Your task to perform on an android device: Search for usb-c to usb-b on ebay, select the first entry, add it to the cart, then select checkout. Image 0: 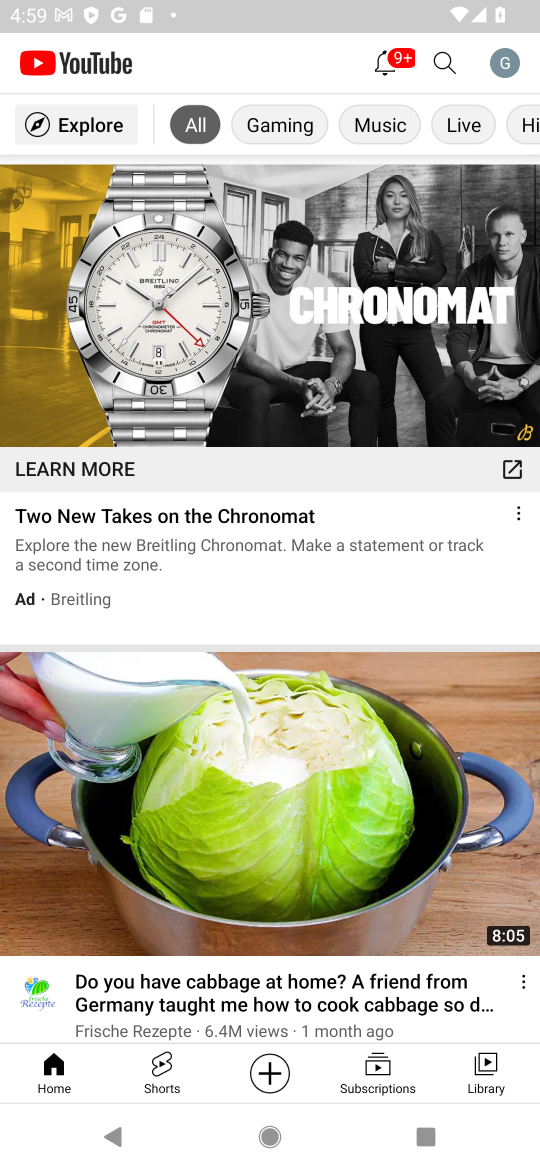
Step 0: press home button
Your task to perform on an android device: Search for usb-c to usb-b on ebay, select the first entry, add it to the cart, then select checkout. Image 1: 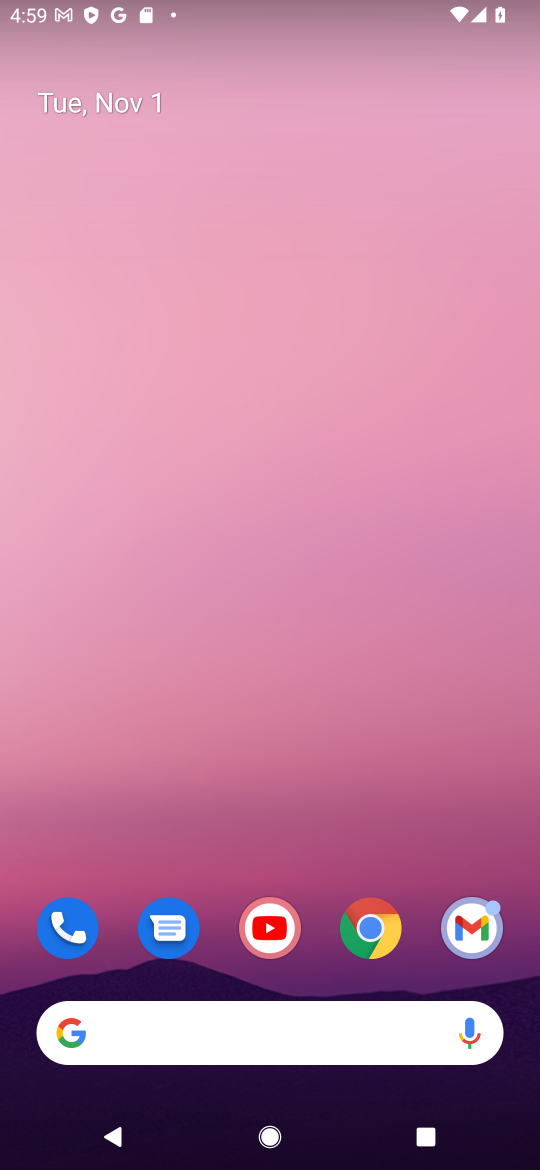
Step 1: click (375, 936)
Your task to perform on an android device: Search for usb-c to usb-b on ebay, select the first entry, add it to the cart, then select checkout. Image 2: 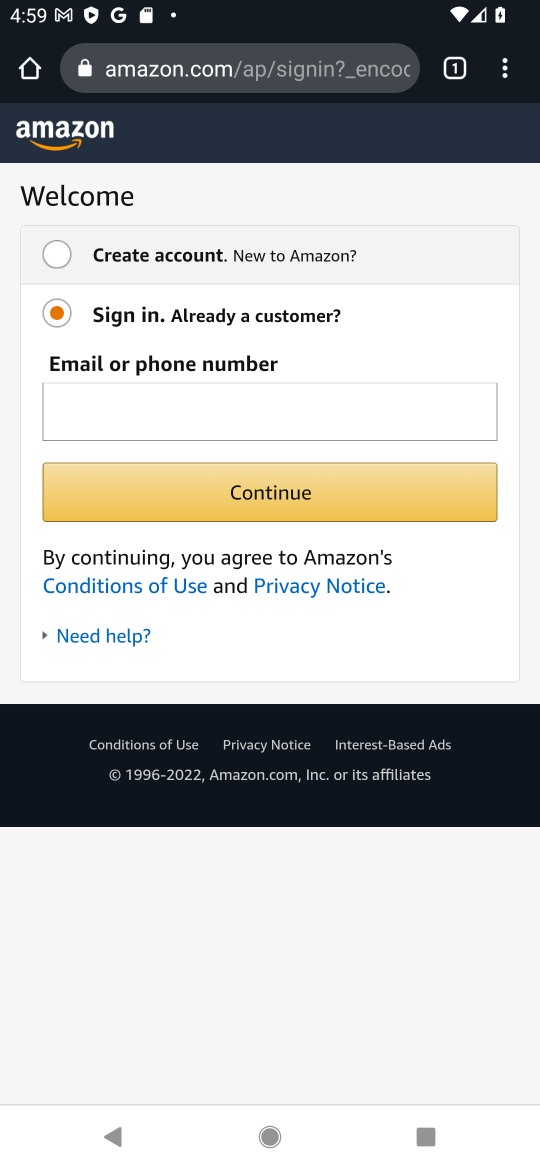
Step 2: click (271, 77)
Your task to perform on an android device: Search for usb-c to usb-b on ebay, select the first entry, add it to the cart, then select checkout. Image 3: 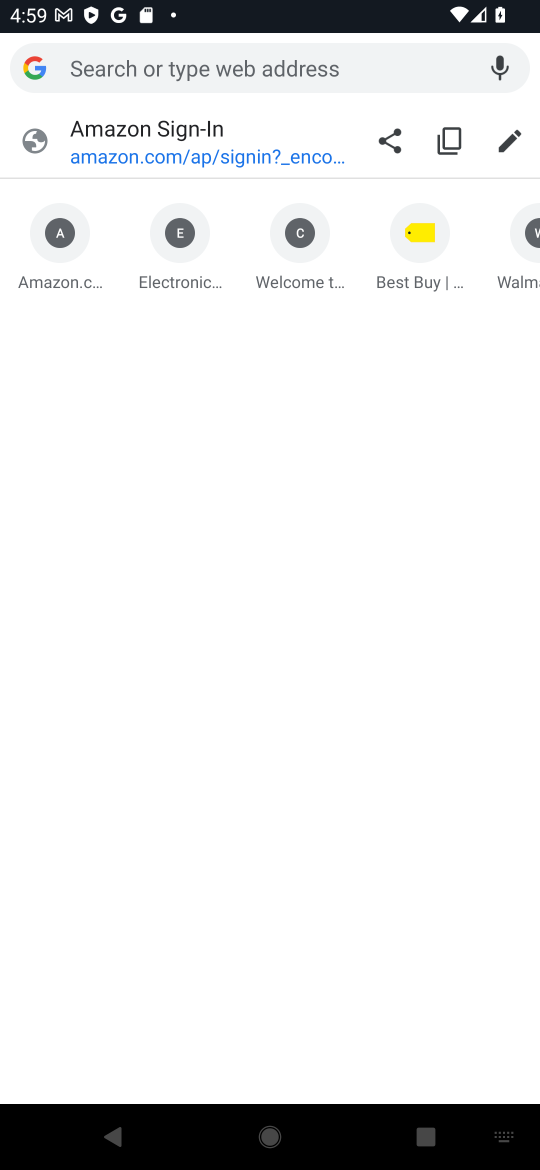
Step 3: type "ebay"
Your task to perform on an android device: Search for usb-c to usb-b on ebay, select the first entry, add it to the cart, then select checkout. Image 4: 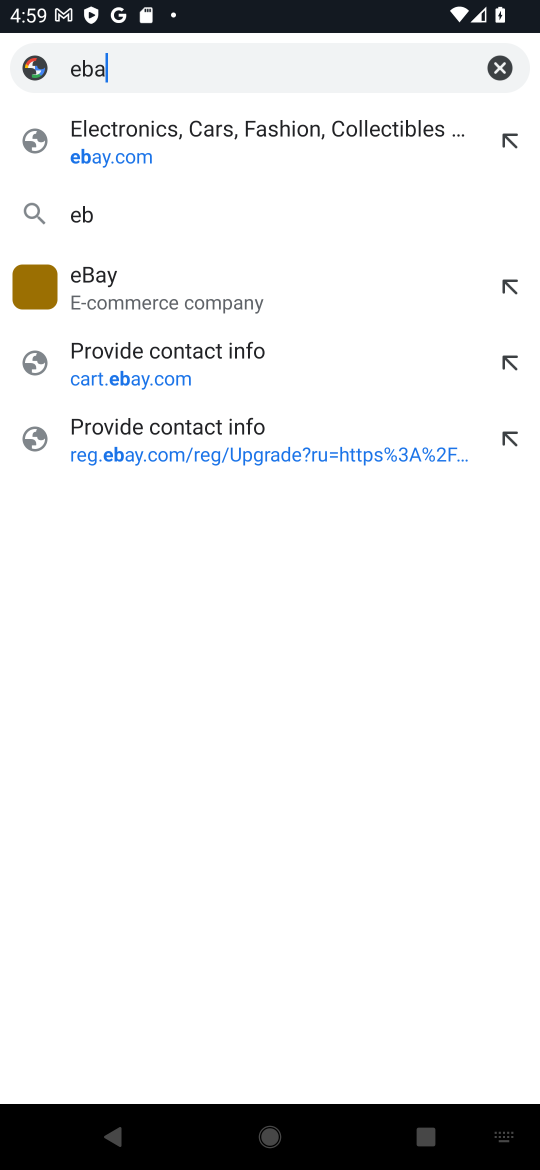
Step 4: type ""
Your task to perform on an android device: Search for usb-c to usb-b on ebay, select the first entry, add it to the cart, then select checkout. Image 5: 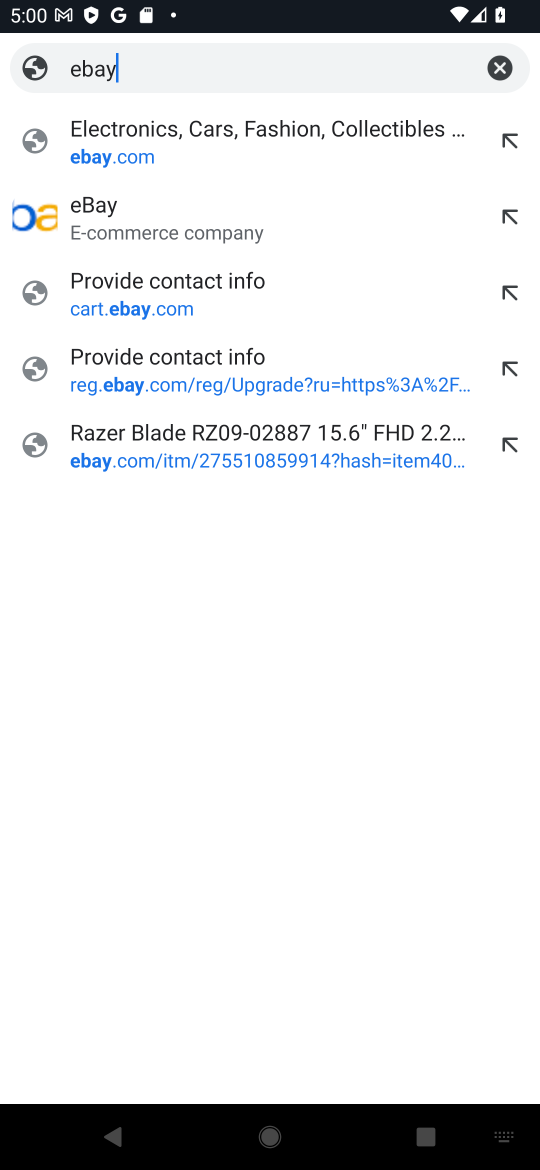
Step 5: press enter
Your task to perform on an android device: Search for usb-c to usb-b on ebay, select the first entry, add it to the cart, then select checkout. Image 6: 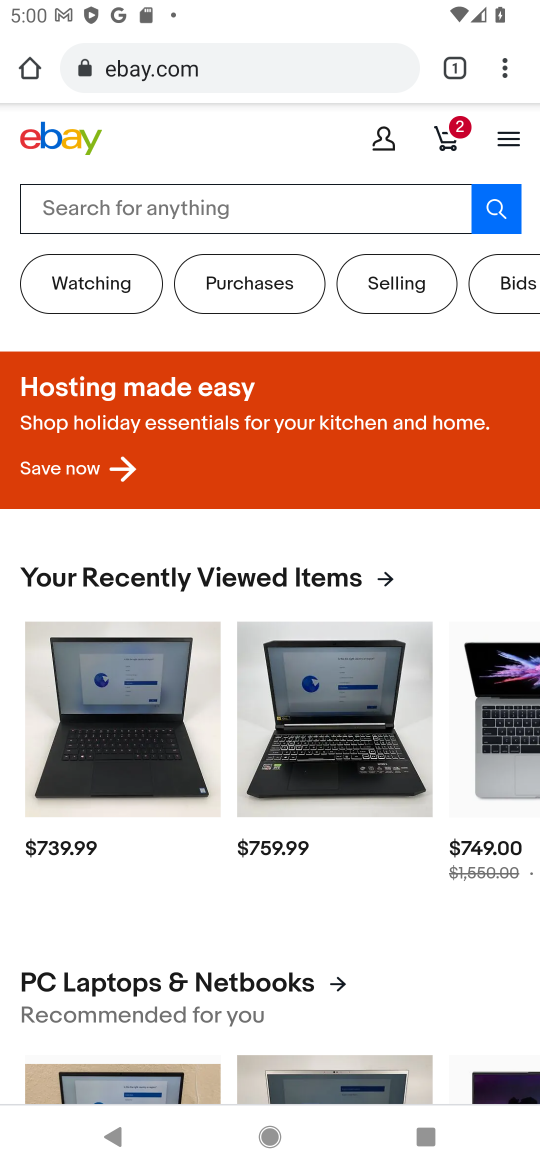
Step 6: click (306, 209)
Your task to perform on an android device: Search for usb-c to usb-b on ebay, select the first entry, add it to the cart, then select checkout. Image 7: 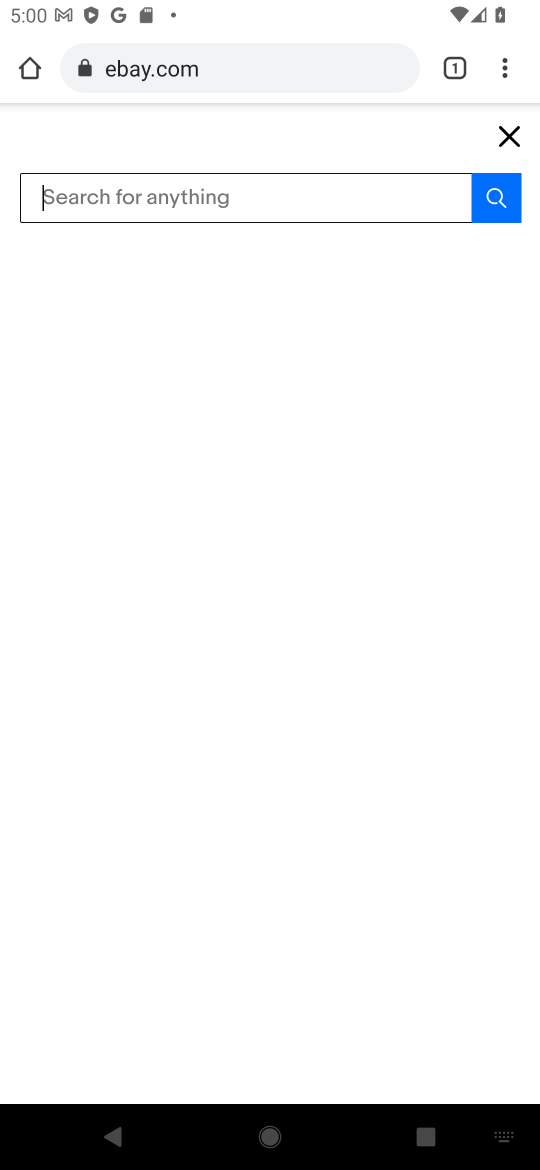
Step 7: type "usb-c to usb-b"
Your task to perform on an android device: Search for usb-c to usb-b on ebay, select the first entry, add it to the cart, then select checkout. Image 8: 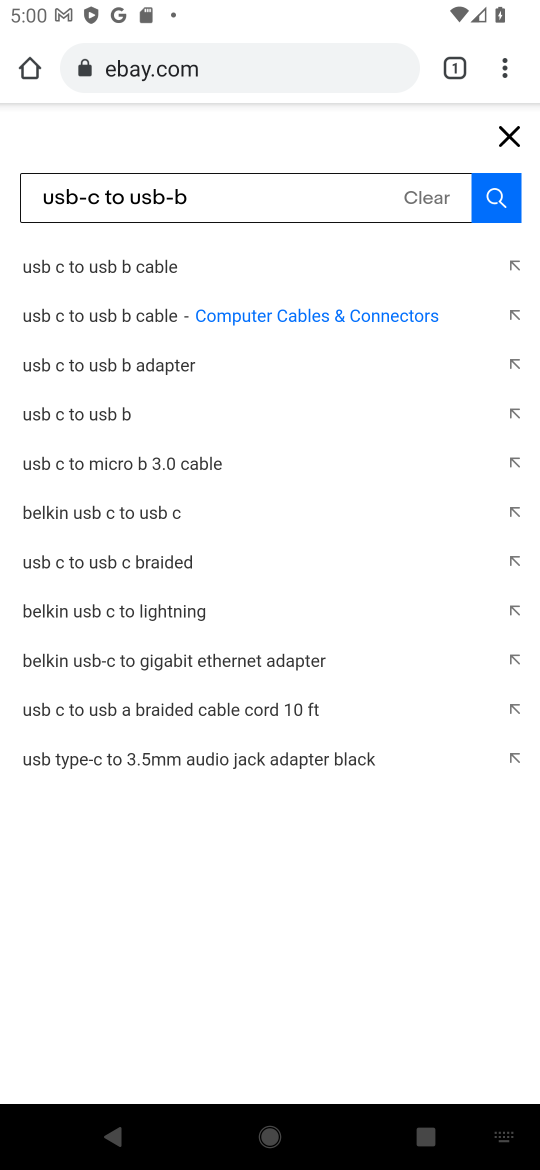
Step 8: click (501, 203)
Your task to perform on an android device: Search for usb-c to usb-b on ebay, select the first entry, add it to the cart, then select checkout. Image 9: 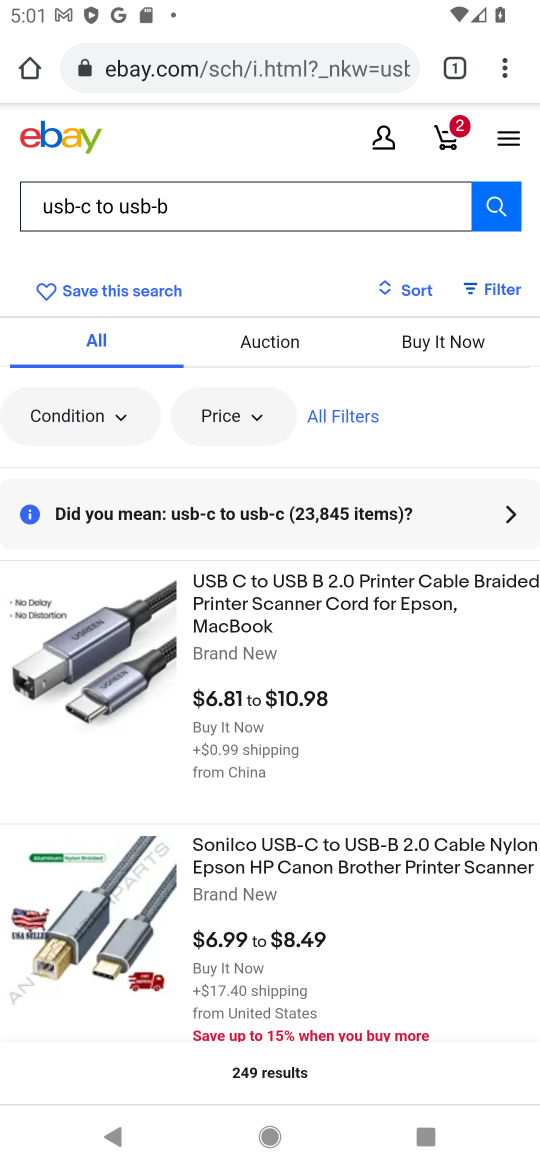
Step 9: click (352, 740)
Your task to perform on an android device: Search for usb-c to usb-b on ebay, select the first entry, add it to the cart, then select checkout. Image 10: 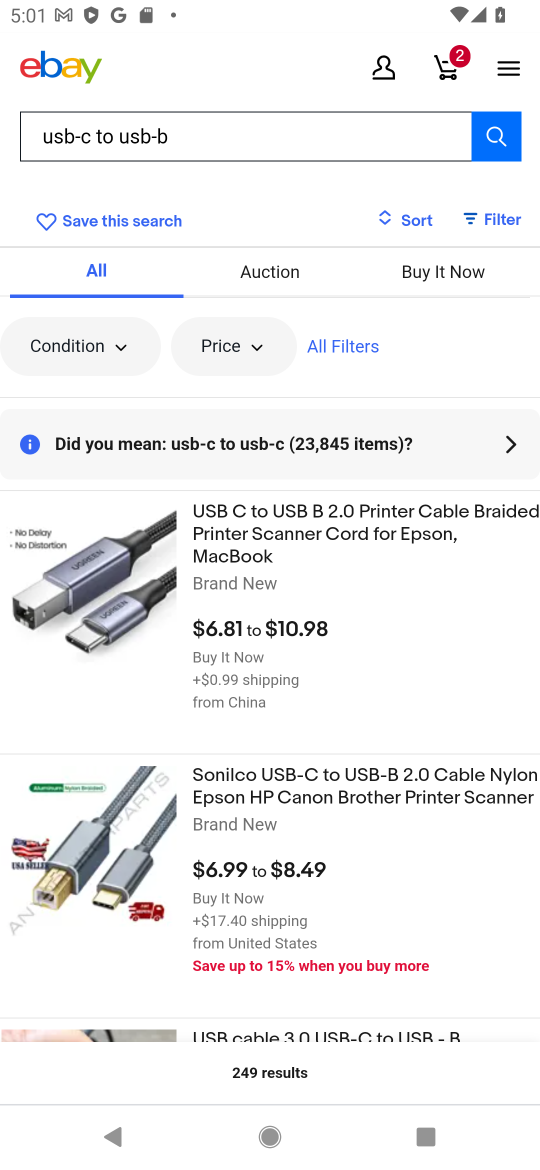
Step 10: click (399, 558)
Your task to perform on an android device: Search for usb-c to usb-b on ebay, select the first entry, add it to the cart, then select checkout. Image 11: 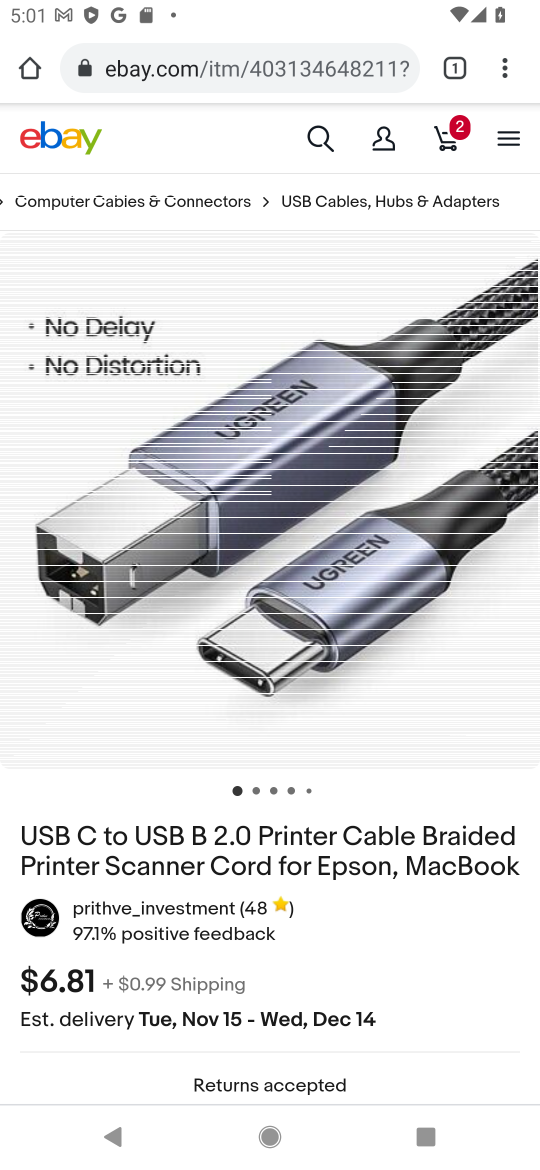
Step 11: drag from (336, 986) to (345, 515)
Your task to perform on an android device: Search for usb-c to usb-b on ebay, select the first entry, add it to the cart, then select checkout. Image 12: 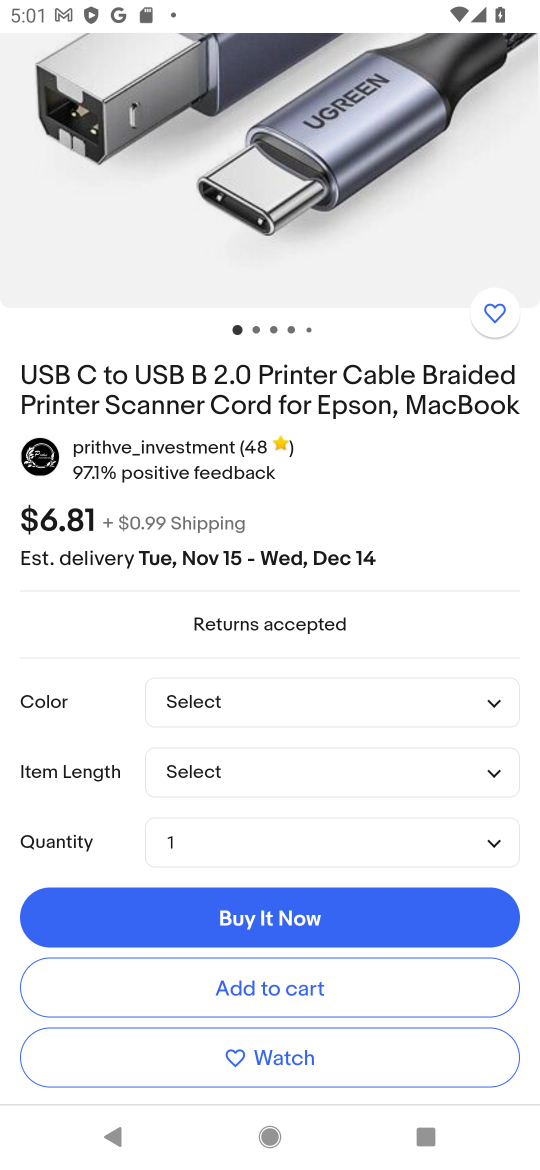
Step 12: click (356, 981)
Your task to perform on an android device: Search for usb-c to usb-b on ebay, select the first entry, add it to the cart, then select checkout. Image 13: 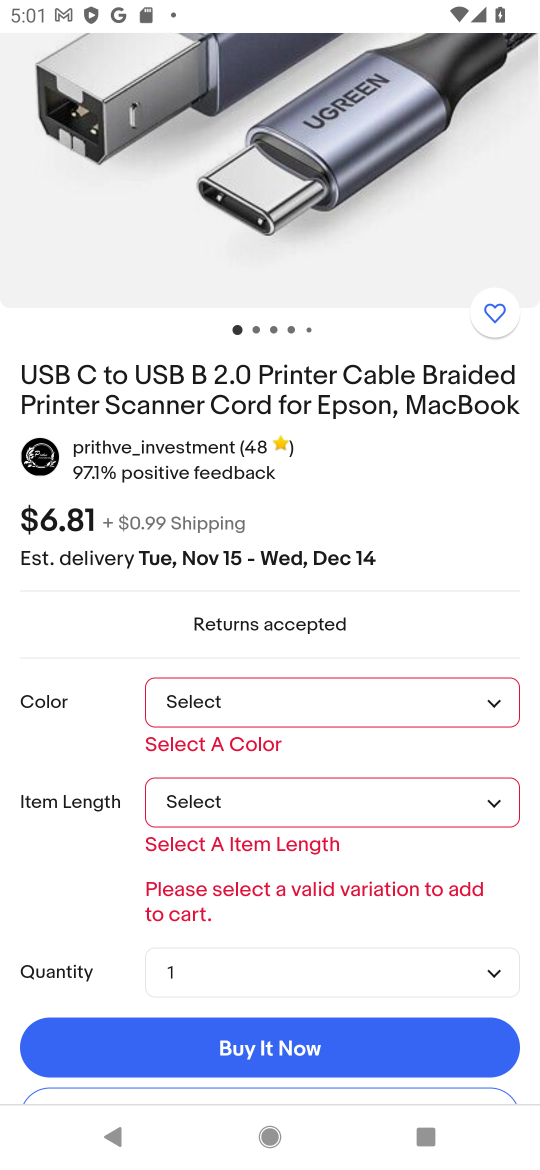
Step 13: click (369, 709)
Your task to perform on an android device: Search for usb-c to usb-b on ebay, select the first entry, add it to the cart, then select checkout. Image 14: 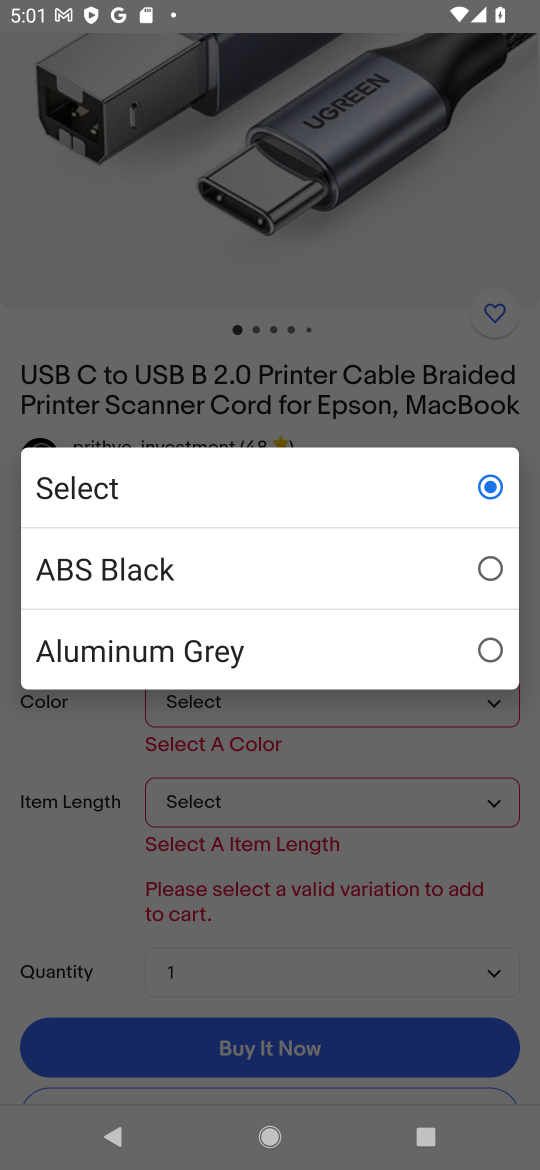
Step 14: click (294, 571)
Your task to perform on an android device: Search for usb-c to usb-b on ebay, select the first entry, add it to the cart, then select checkout. Image 15: 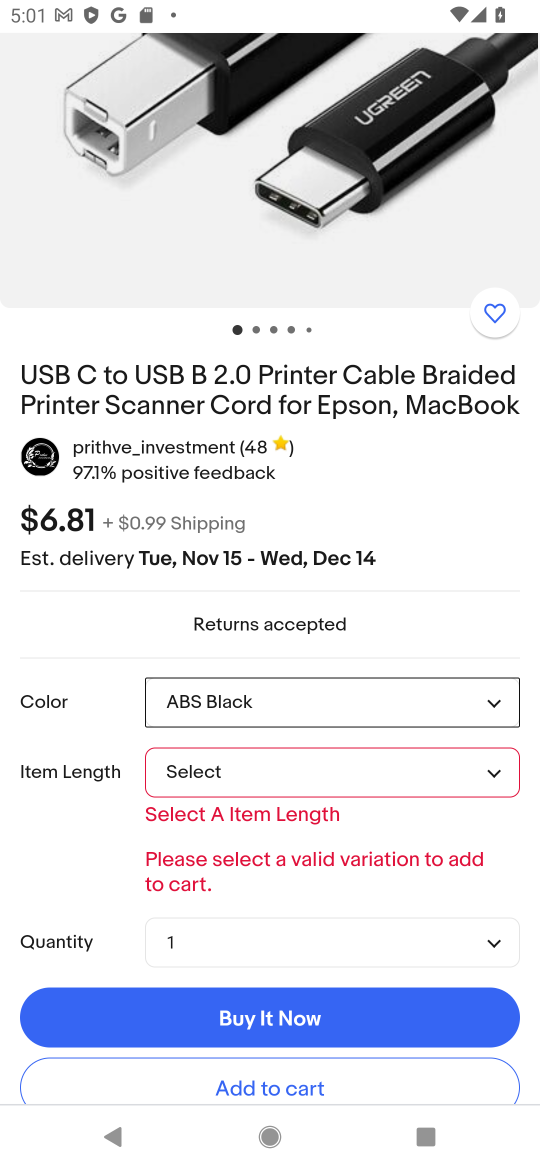
Step 15: click (304, 772)
Your task to perform on an android device: Search for usb-c to usb-b on ebay, select the first entry, add it to the cart, then select checkout. Image 16: 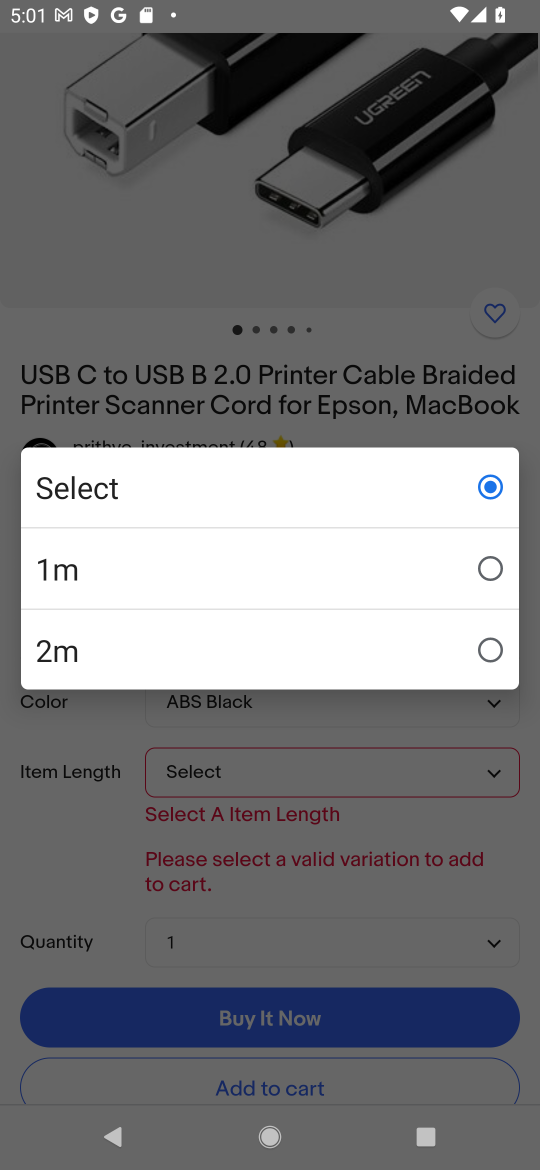
Step 16: click (303, 550)
Your task to perform on an android device: Search for usb-c to usb-b on ebay, select the first entry, add it to the cart, then select checkout. Image 17: 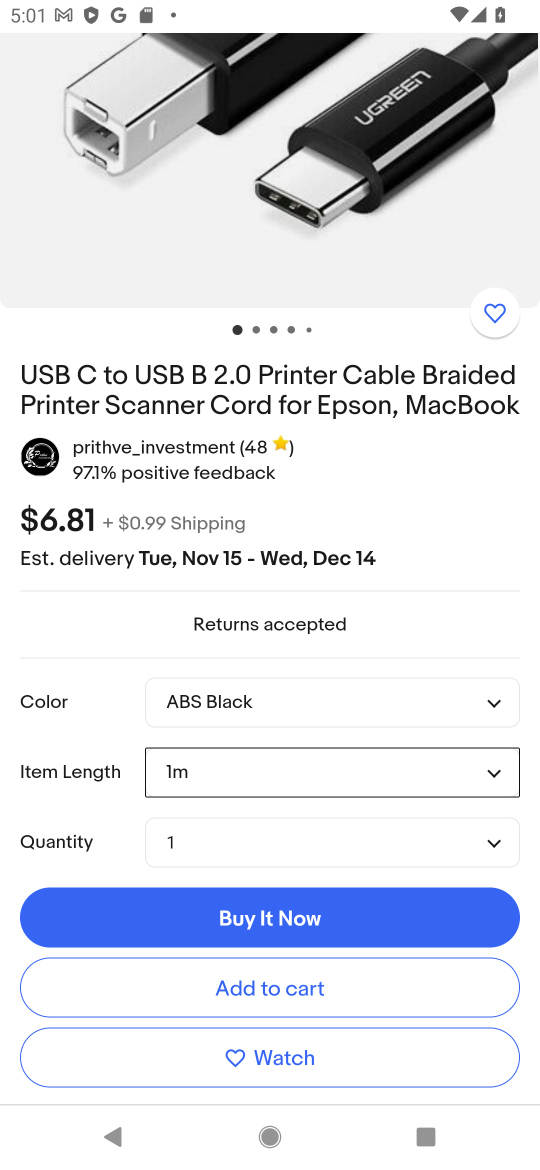
Step 17: click (322, 989)
Your task to perform on an android device: Search for usb-c to usb-b on ebay, select the first entry, add it to the cart, then select checkout. Image 18: 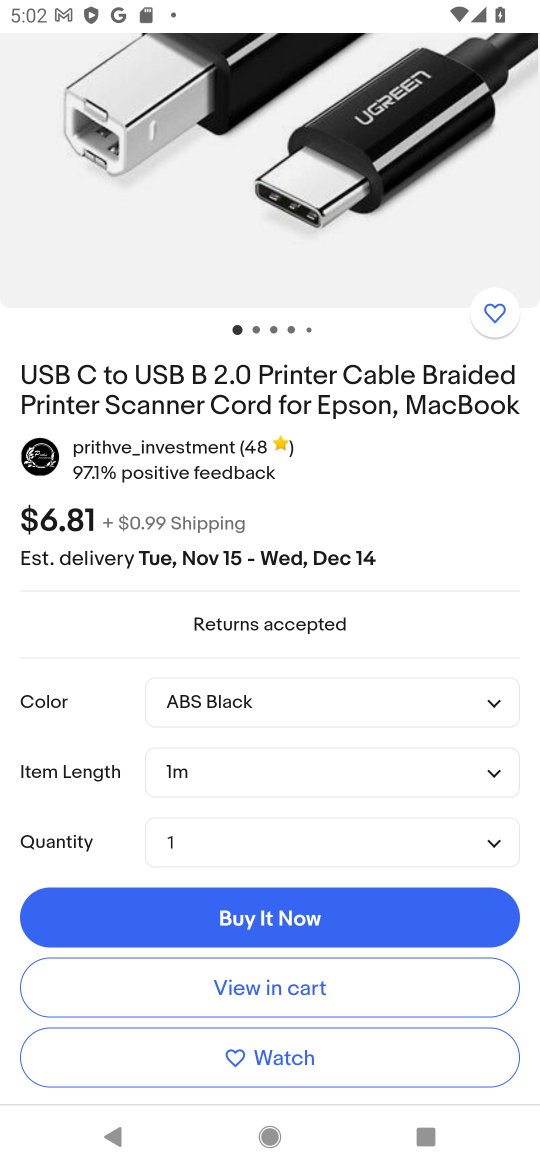
Step 18: click (322, 989)
Your task to perform on an android device: Search for usb-c to usb-b on ebay, select the first entry, add it to the cart, then select checkout. Image 19: 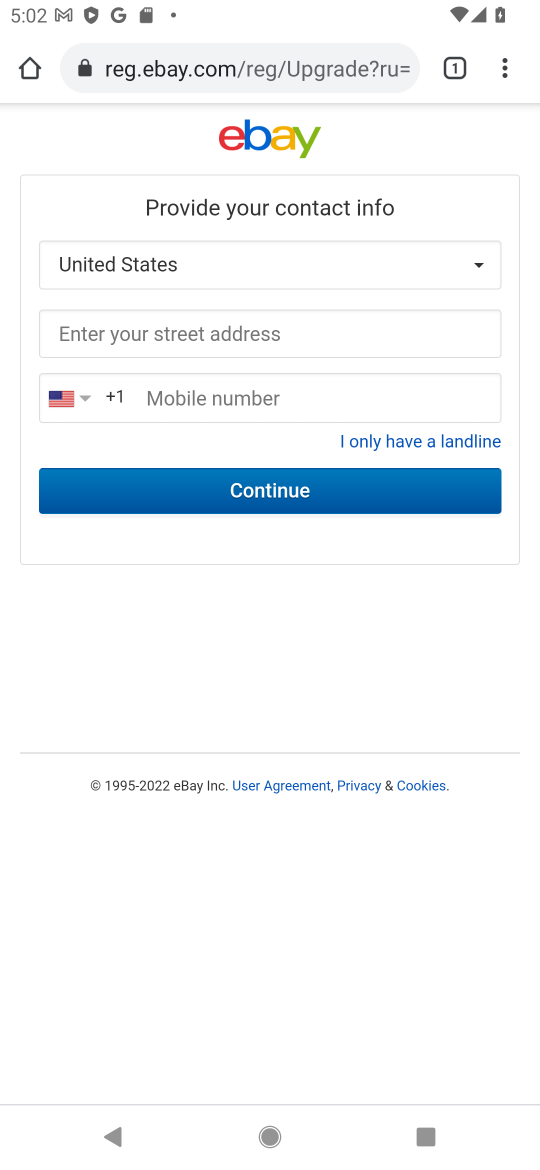
Step 19: task complete